Your task to perform on an android device: Open the calendar app, open the side menu, and click the "Day" option Image 0: 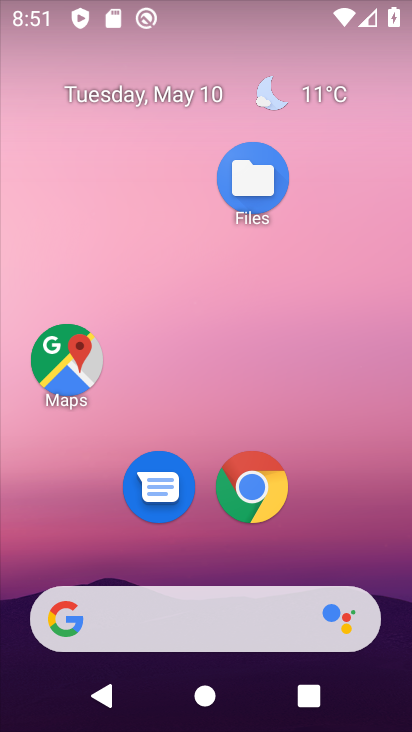
Step 0: drag from (220, 555) to (269, 98)
Your task to perform on an android device: Open the calendar app, open the side menu, and click the "Day" option Image 1: 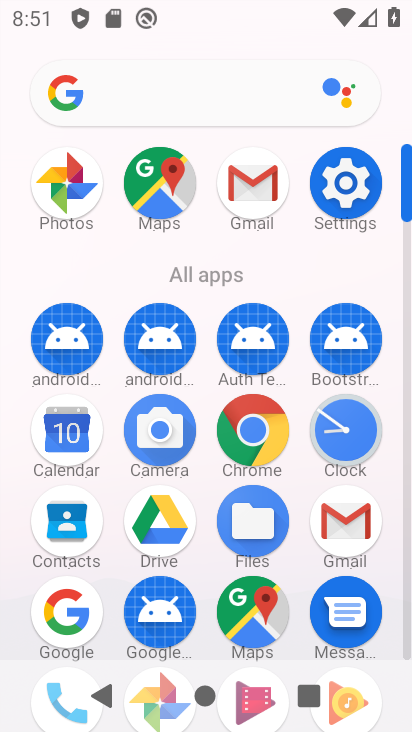
Step 1: click (69, 437)
Your task to perform on an android device: Open the calendar app, open the side menu, and click the "Day" option Image 2: 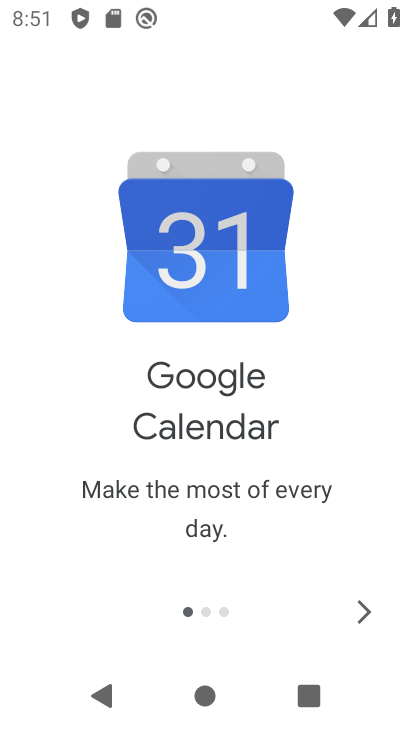
Step 2: click (369, 613)
Your task to perform on an android device: Open the calendar app, open the side menu, and click the "Day" option Image 3: 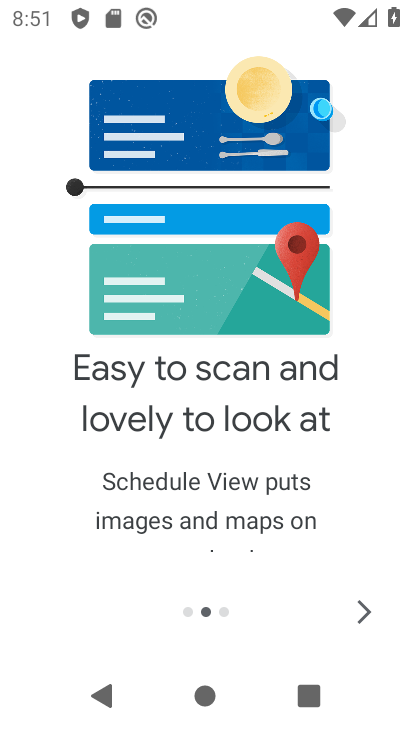
Step 3: click (369, 613)
Your task to perform on an android device: Open the calendar app, open the side menu, and click the "Day" option Image 4: 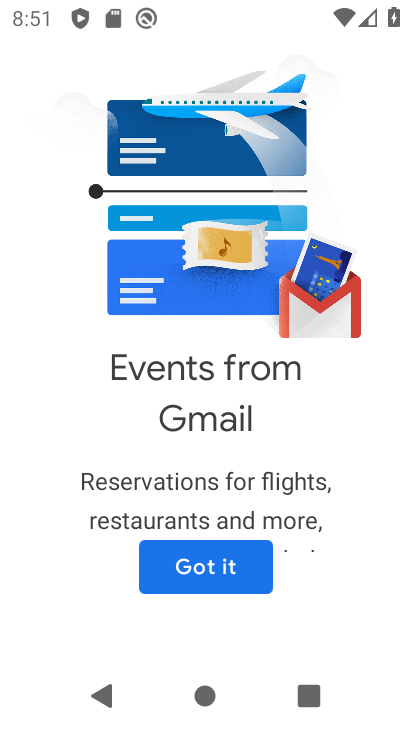
Step 4: click (210, 567)
Your task to perform on an android device: Open the calendar app, open the side menu, and click the "Day" option Image 5: 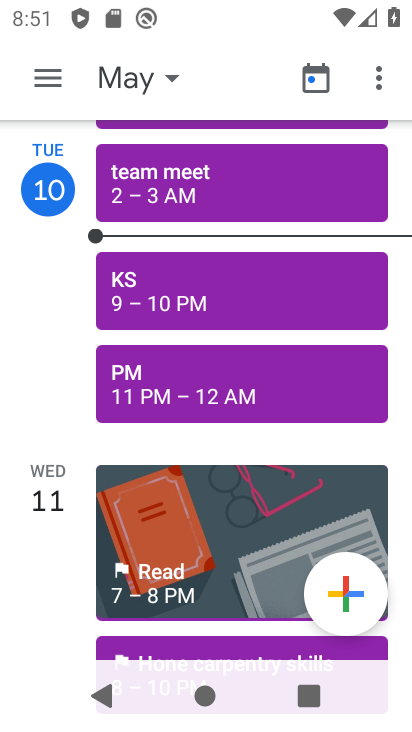
Step 5: click (55, 80)
Your task to perform on an android device: Open the calendar app, open the side menu, and click the "Day" option Image 6: 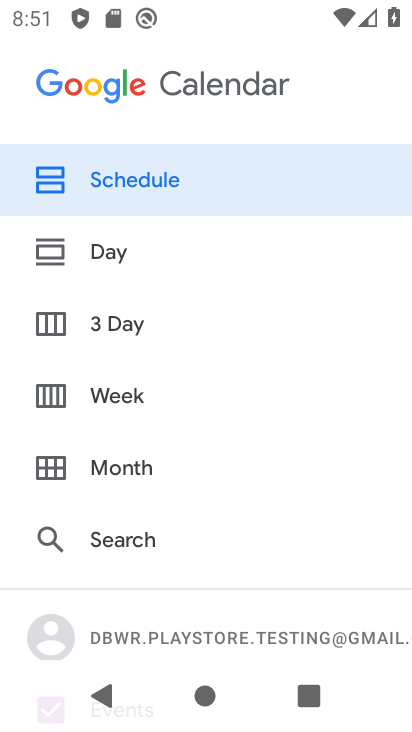
Step 6: click (127, 263)
Your task to perform on an android device: Open the calendar app, open the side menu, and click the "Day" option Image 7: 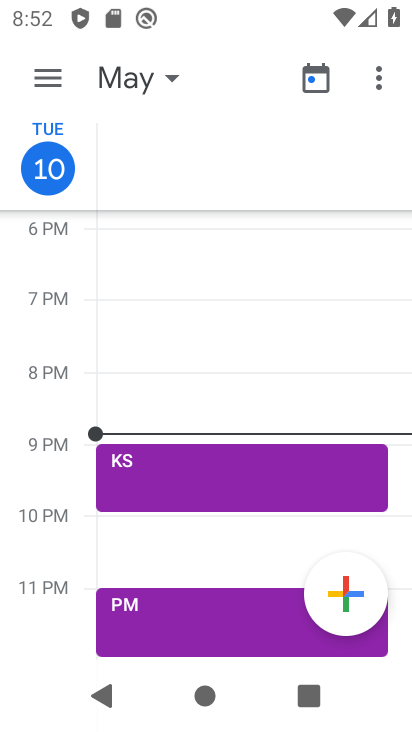
Step 7: task complete